Your task to perform on an android device: Open Chrome and go to settings Image 0: 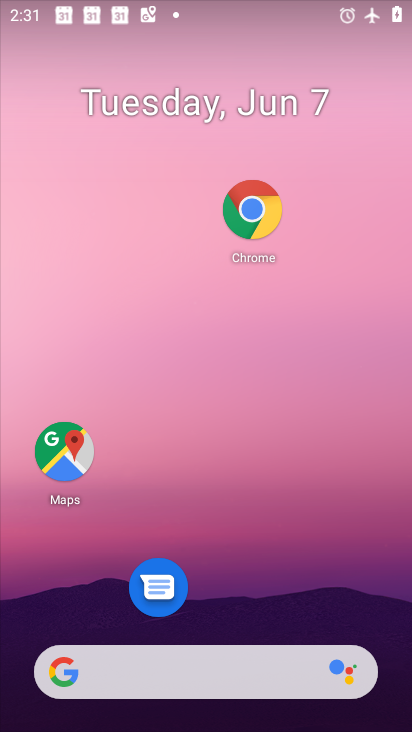
Step 0: drag from (252, 615) to (321, 173)
Your task to perform on an android device: Open Chrome and go to settings Image 1: 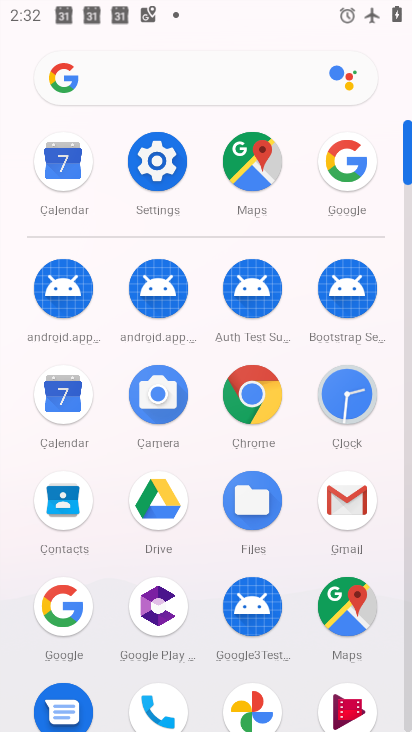
Step 1: click (269, 382)
Your task to perform on an android device: Open Chrome and go to settings Image 2: 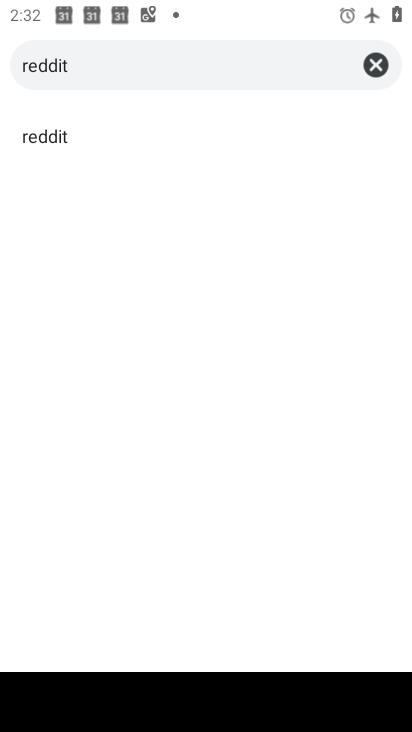
Step 2: task complete